Your task to perform on an android device: Open privacy settings Image 0: 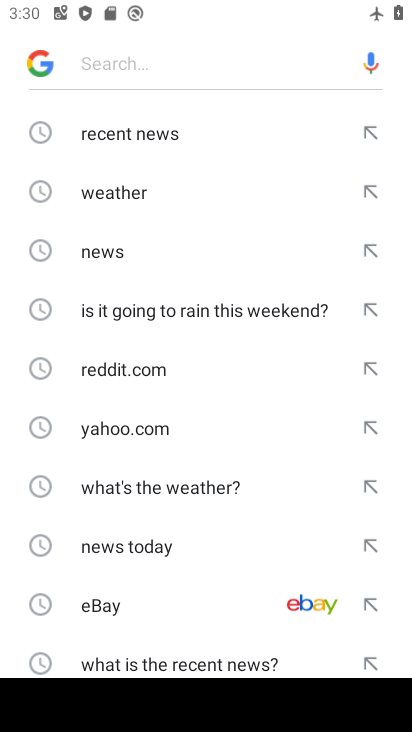
Step 0: press back button
Your task to perform on an android device: Open privacy settings Image 1: 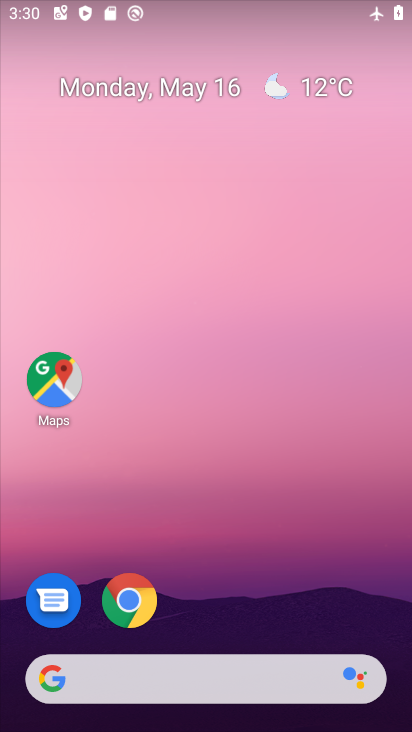
Step 1: drag from (207, 659) to (125, 8)
Your task to perform on an android device: Open privacy settings Image 2: 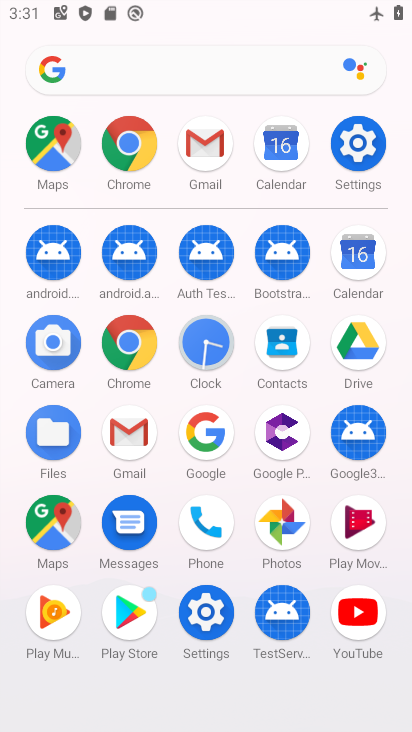
Step 2: click (216, 593)
Your task to perform on an android device: Open privacy settings Image 3: 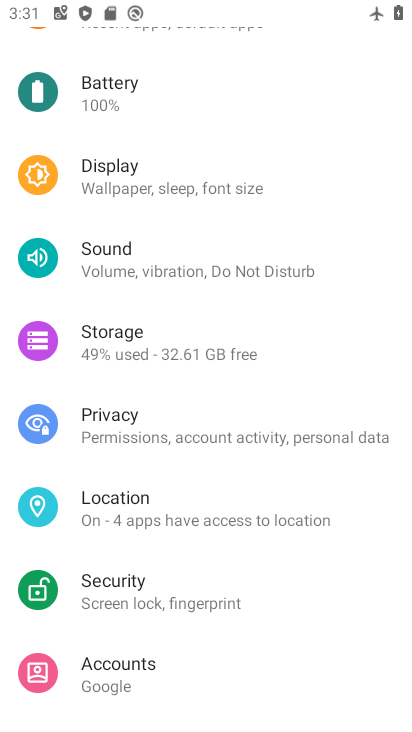
Step 3: click (155, 438)
Your task to perform on an android device: Open privacy settings Image 4: 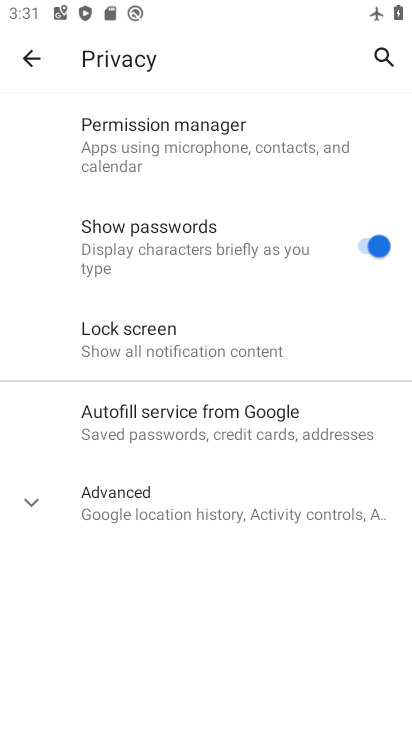
Step 4: task complete